Your task to perform on an android device: Open maps Image 0: 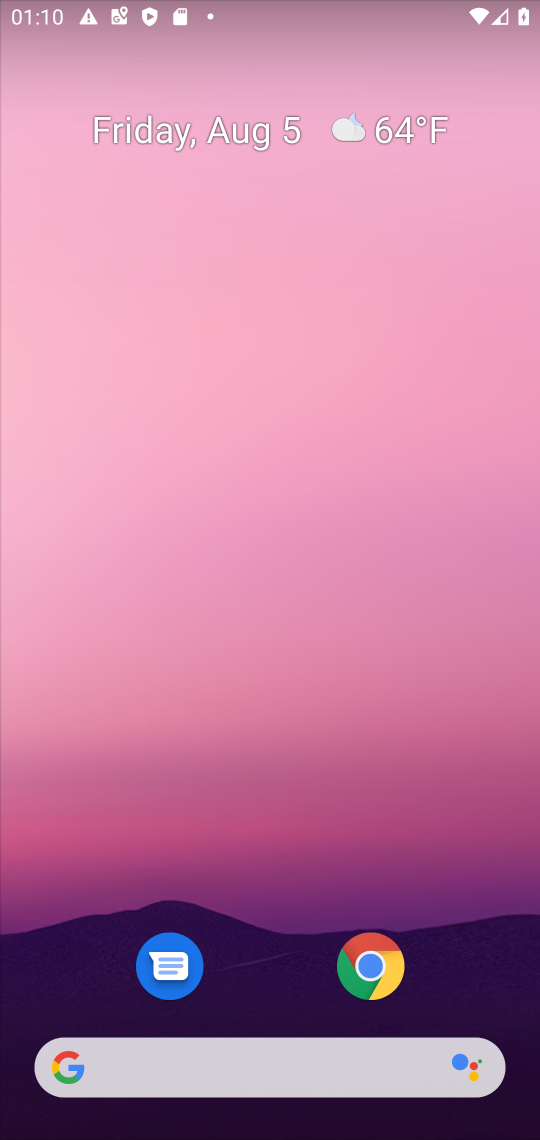
Step 0: drag from (231, 966) to (371, 117)
Your task to perform on an android device: Open maps Image 1: 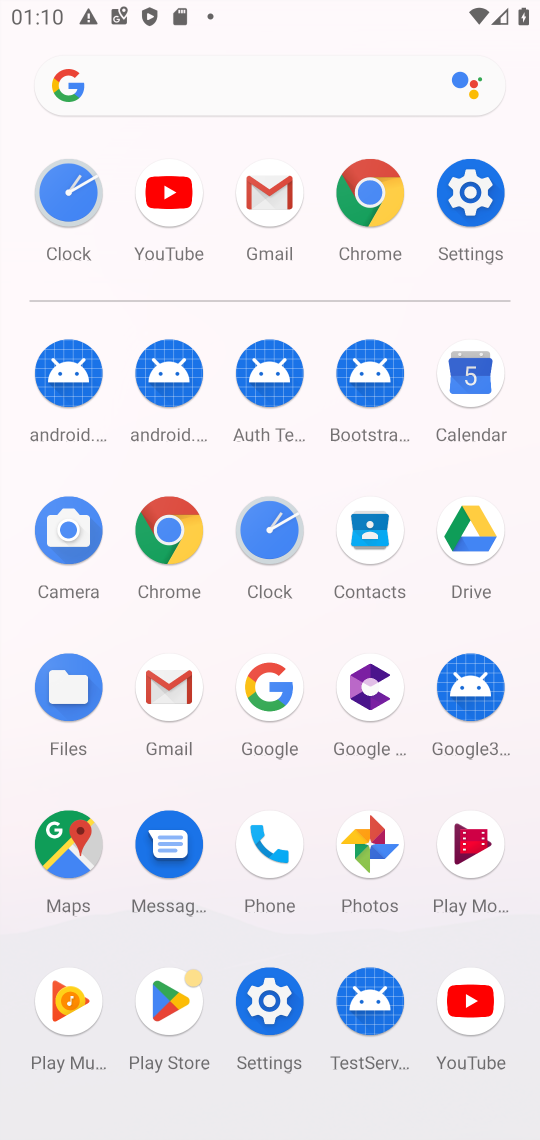
Step 1: click (82, 830)
Your task to perform on an android device: Open maps Image 2: 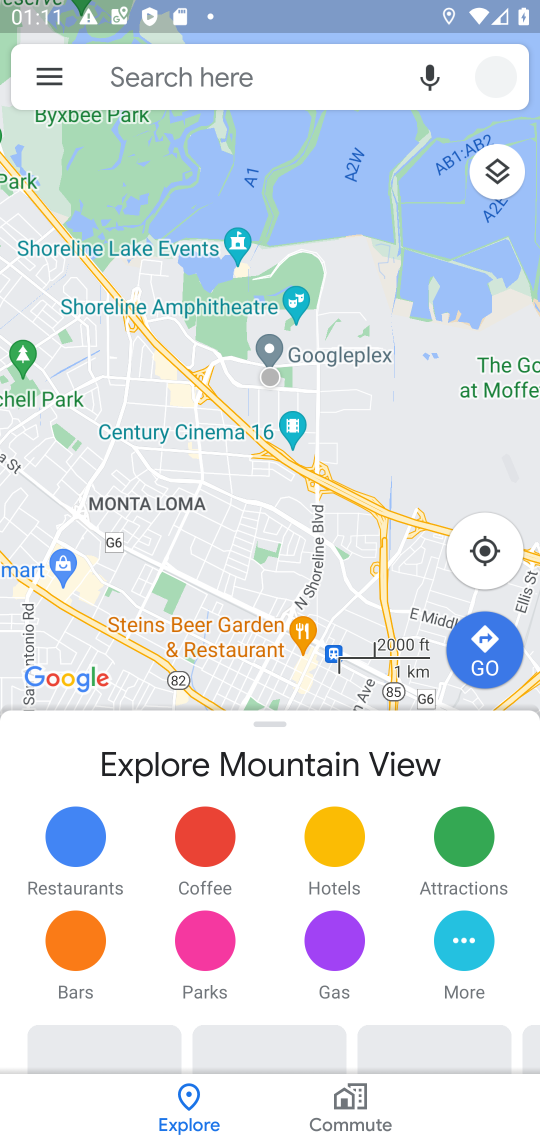
Step 2: task complete